Your task to perform on an android device: Go to location settings Image 0: 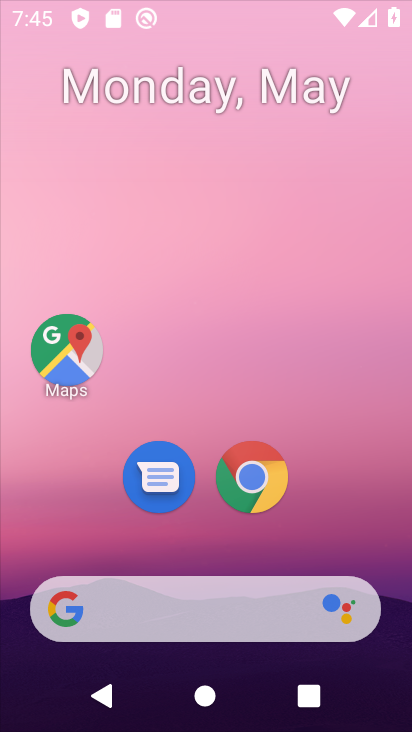
Step 0: press home button
Your task to perform on an android device: Go to location settings Image 1: 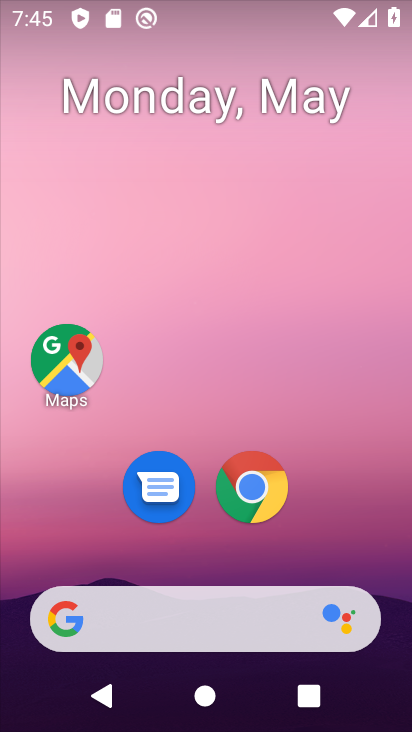
Step 1: drag from (304, 555) to (293, 117)
Your task to perform on an android device: Go to location settings Image 2: 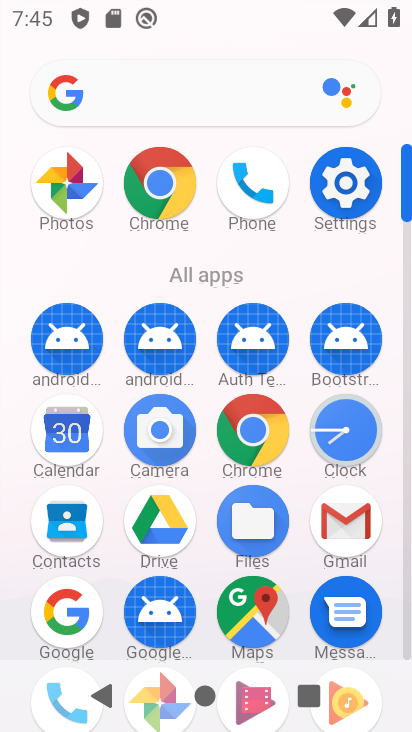
Step 2: click (338, 190)
Your task to perform on an android device: Go to location settings Image 3: 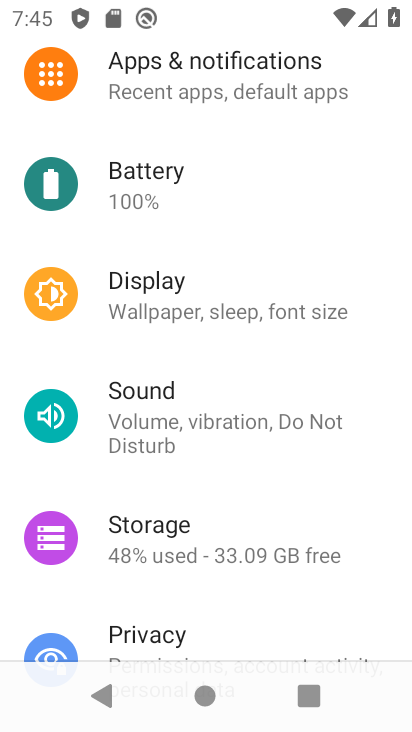
Step 3: drag from (351, 615) to (330, 242)
Your task to perform on an android device: Go to location settings Image 4: 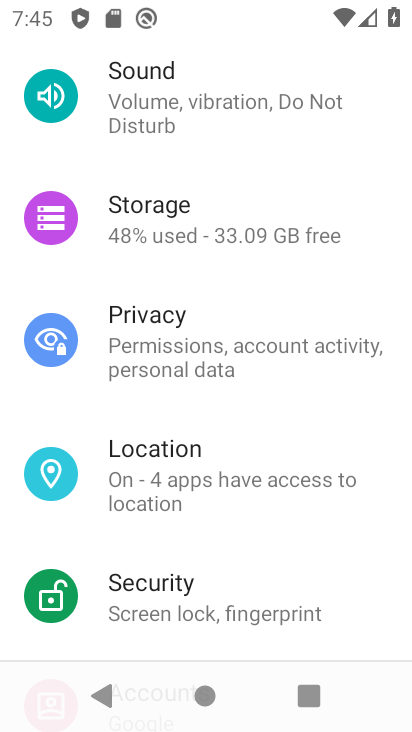
Step 4: click (150, 458)
Your task to perform on an android device: Go to location settings Image 5: 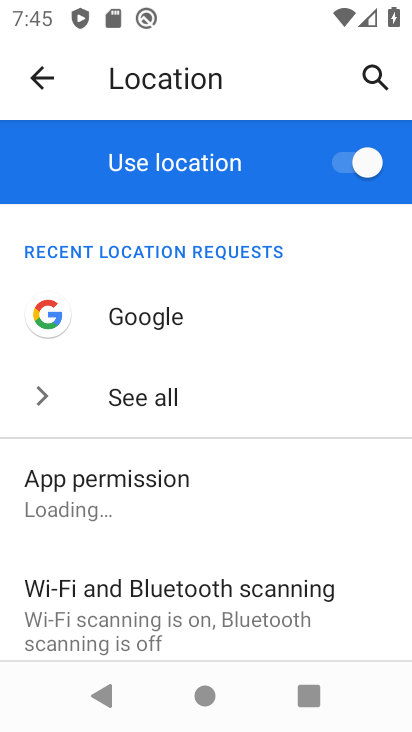
Step 5: drag from (290, 511) to (252, 149)
Your task to perform on an android device: Go to location settings Image 6: 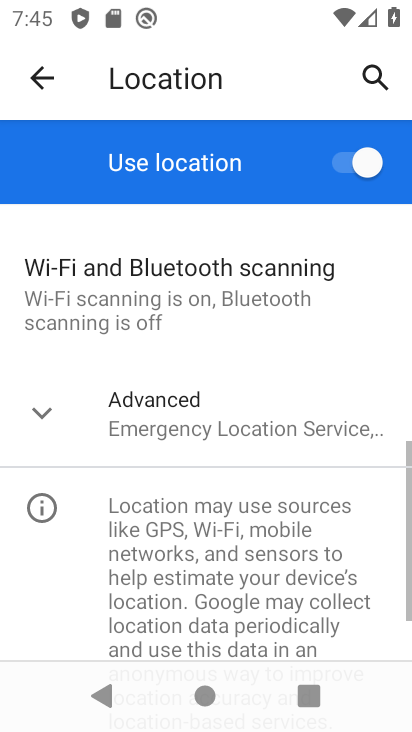
Step 6: click (41, 413)
Your task to perform on an android device: Go to location settings Image 7: 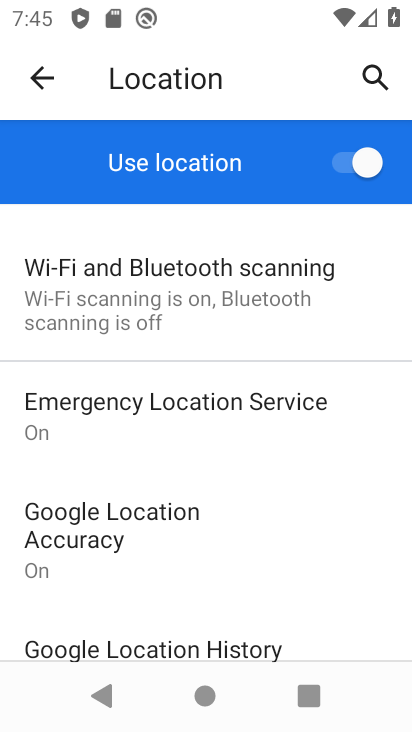
Step 7: task complete